Your task to perform on an android device: Is it going to rain today? Image 0: 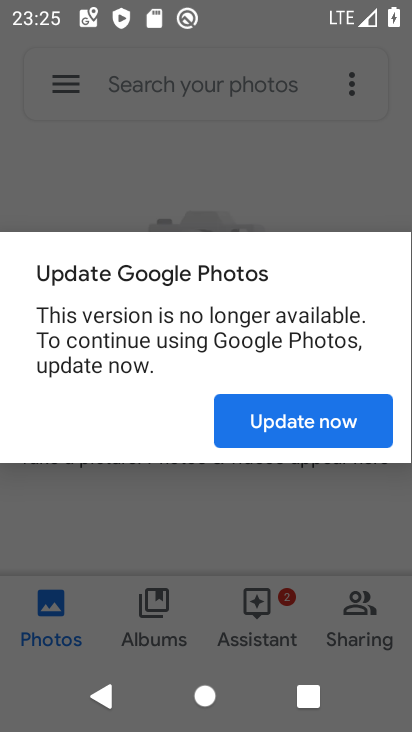
Step 0: press back button
Your task to perform on an android device: Is it going to rain today? Image 1: 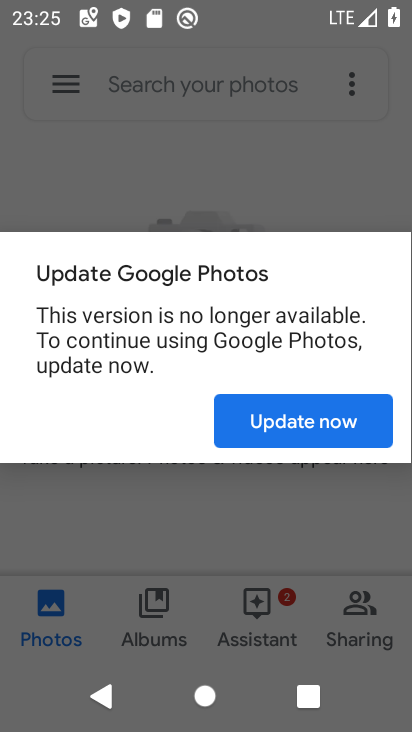
Step 1: press home button
Your task to perform on an android device: Is it going to rain today? Image 2: 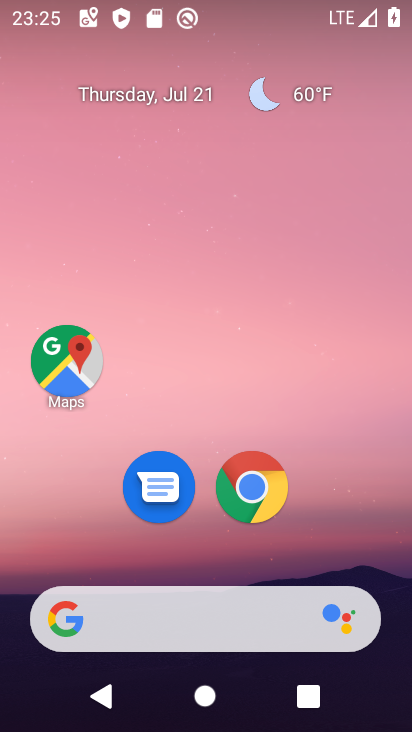
Step 2: drag from (80, 545) to (217, 30)
Your task to perform on an android device: Is it going to rain today? Image 3: 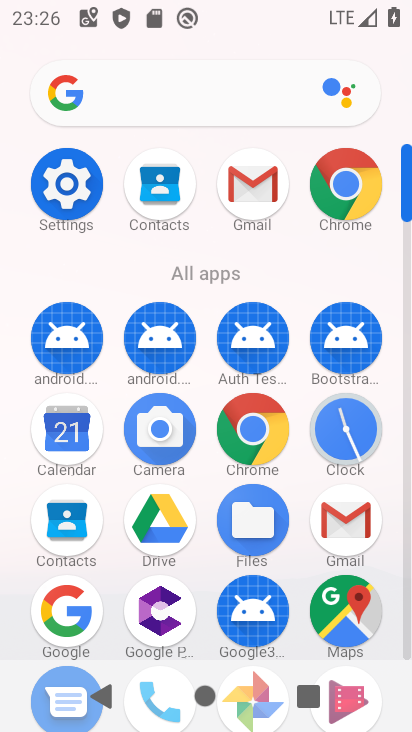
Step 3: click (153, 76)
Your task to perform on an android device: Is it going to rain today? Image 4: 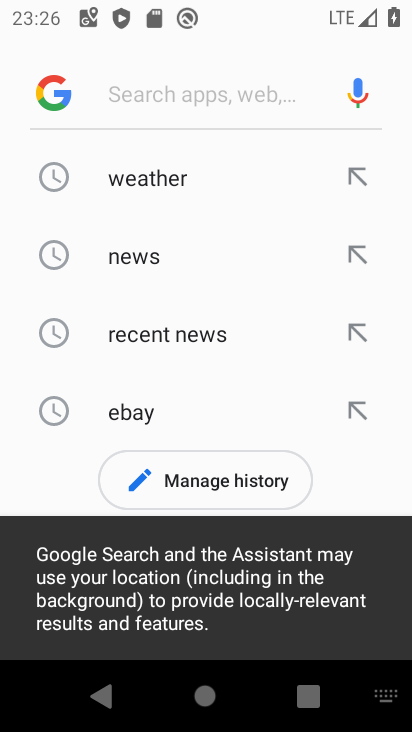
Step 4: click (158, 186)
Your task to perform on an android device: Is it going to rain today? Image 5: 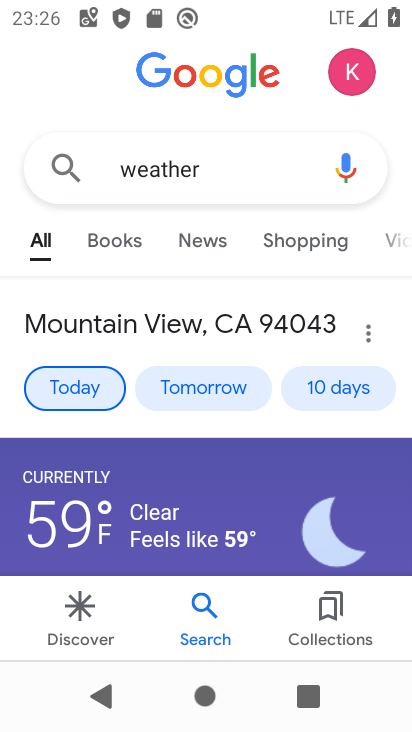
Step 5: task complete